Your task to perform on an android device: Open network settings Image 0: 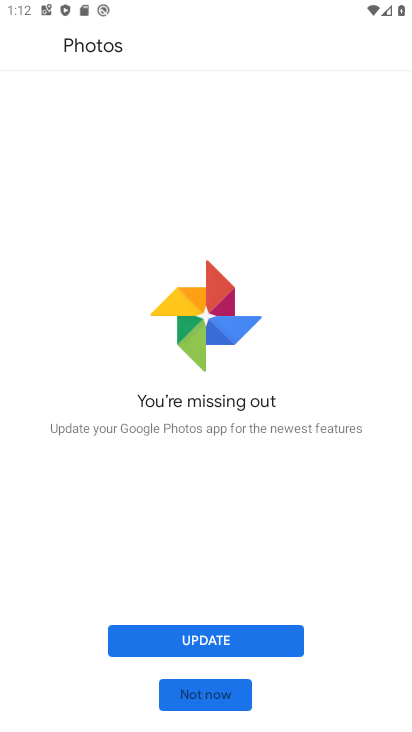
Step 0: press home button
Your task to perform on an android device: Open network settings Image 1: 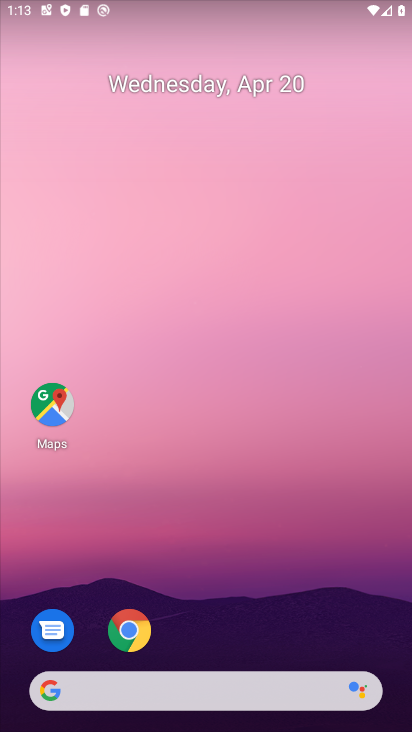
Step 1: drag from (377, 606) to (330, 184)
Your task to perform on an android device: Open network settings Image 2: 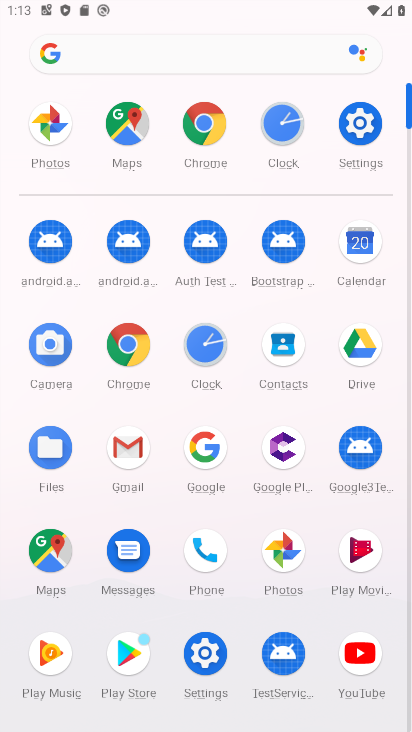
Step 2: click (362, 139)
Your task to perform on an android device: Open network settings Image 3: 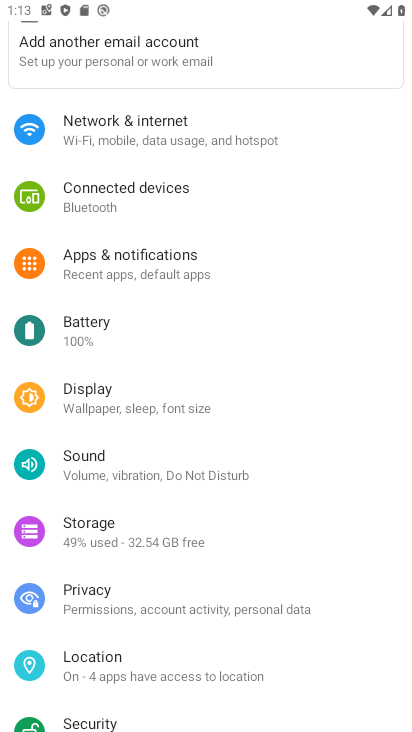
Step 3: click (222, 127)
Your task to perform on an android device: Open network settings Image 4: 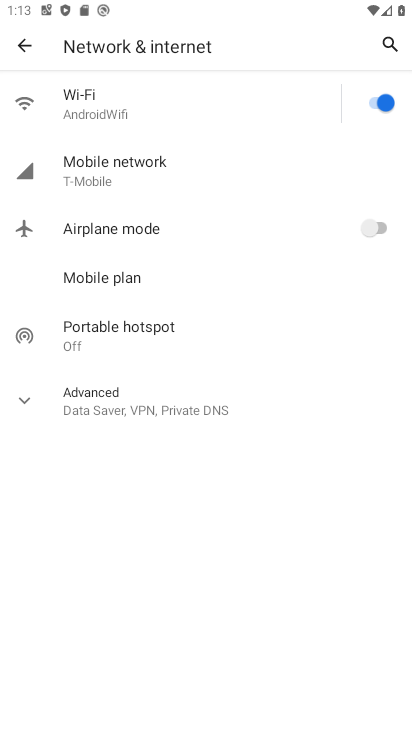
Step 4: task complete